Your task to perform on an android device: Play the last video I watched on Youtube Image 0: 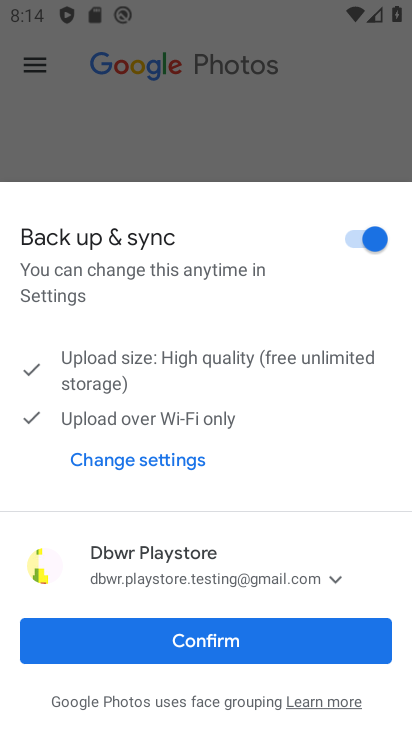
Step 0: press home button
Your task to perform on an android device: Play the last video I watched on Youtube Image 1: 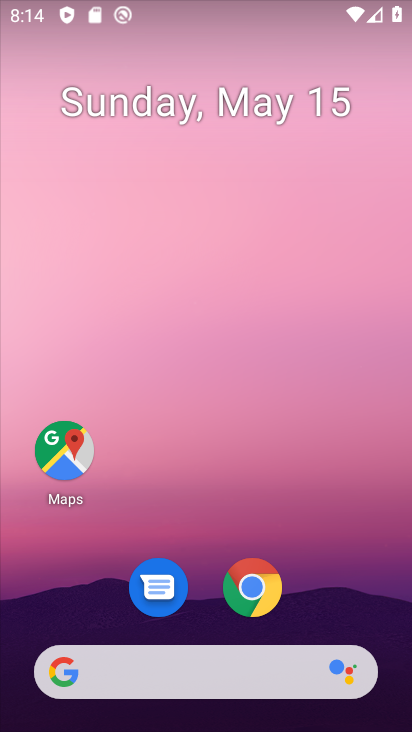
Step 1: drag from (392, 645) to (214, 69)
Your task to perform on an android device: Play the last video I watched on Youtube Image 2: 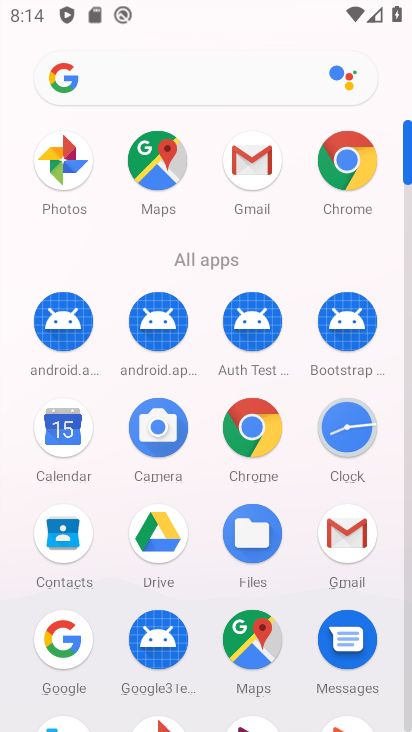
Step 2: drag from (308, 654) to (291, 142)
Your task to perform on an android device: Play the last video I watched on Youtube Image 3: 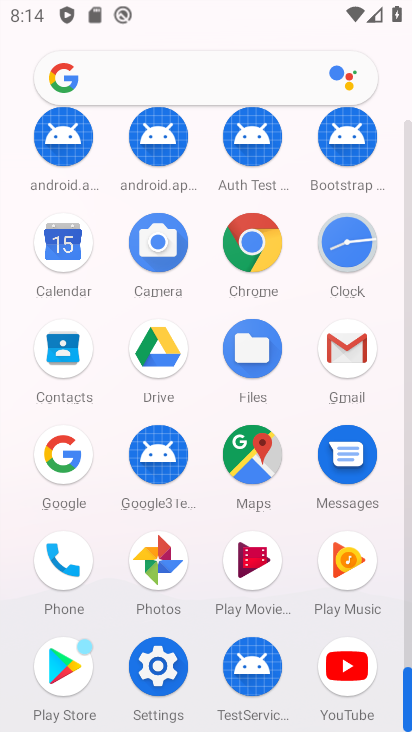
Step 3: click (336, 662)
Your task to perform on an android device: Play the last video I watched on Youtube Image 4: 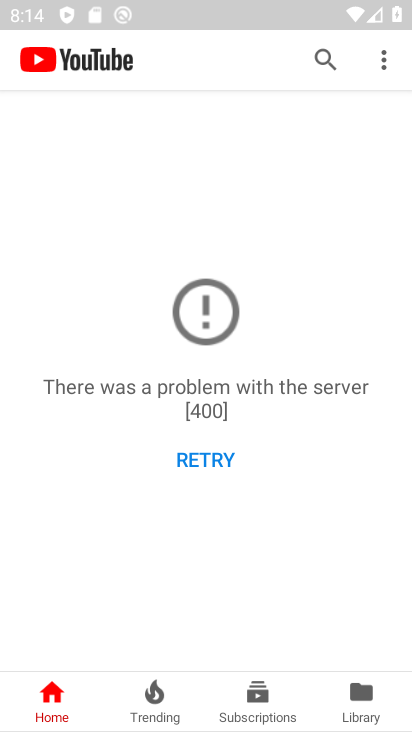
Step 4: click (163, 476)
Your task to perform on an android device: Play the last video I watched on Youtube Image 5: 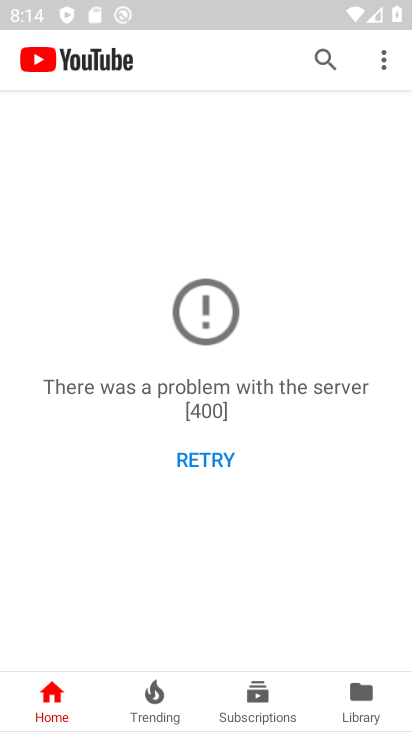
Step 5: click (230, 448)
Your task to perform on an android device: Play the last video I watched on Youtube Image 6: 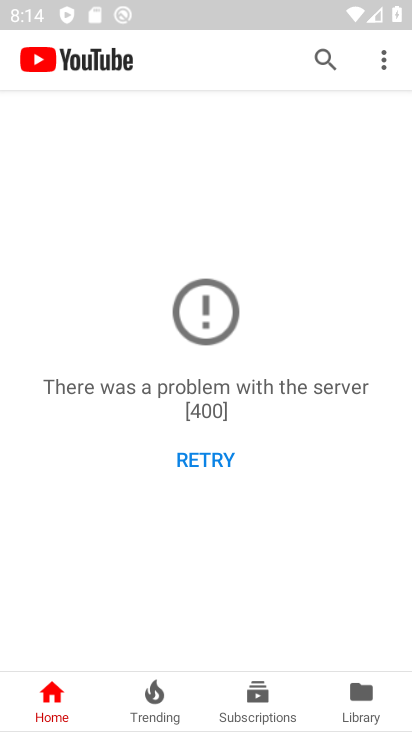
Step 6: click (197, 461)
Your task to perform on an android device: Play the last video I watched on Youtube Image 7: 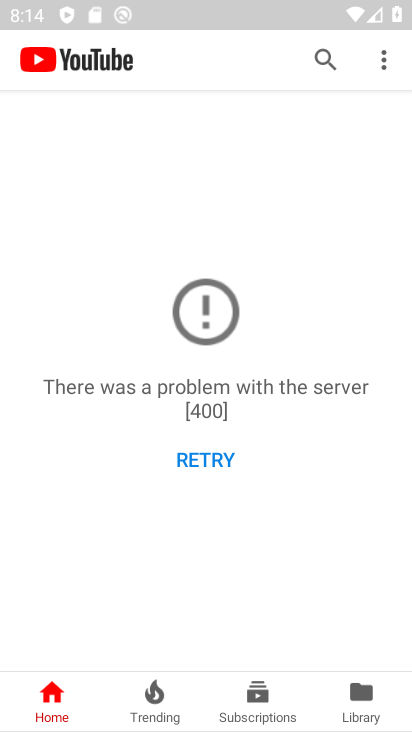
Step 7: task complete